Your task to perform on an android device: turn off smart reply in the gmail app Image 0: 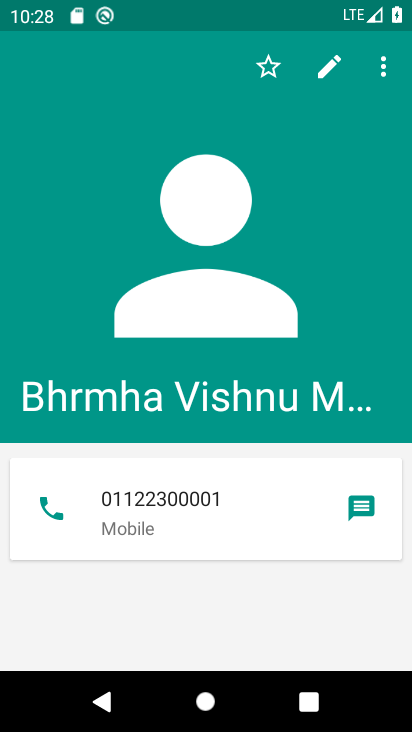
Step 0: press home button
Your task to perform on an android device: turn off smart reply in the gmail app Image 1: 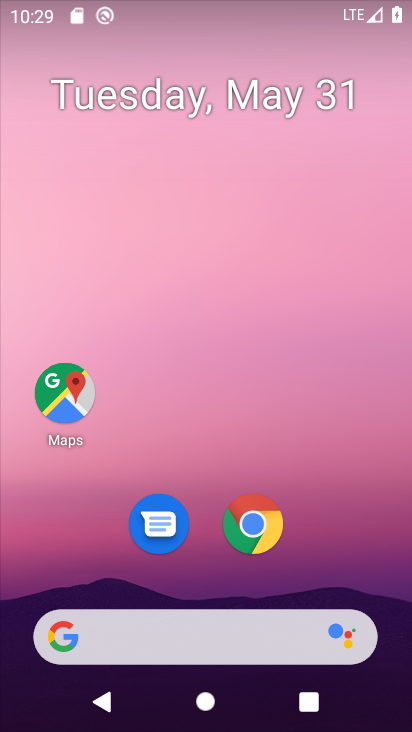
Step 1: drag from (321, 558) to (336, 180)
Your task to perform on an android device: turn off smart reply in the gmail app Image 2: 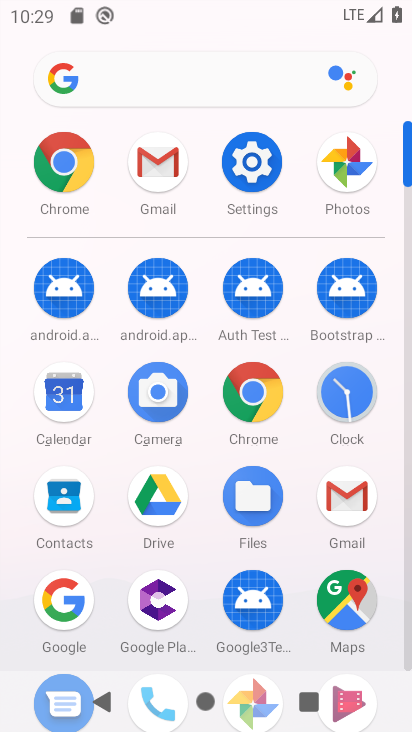
Step 2: click (261, 165)
Your task to perform on an android device: turn off smart reply in the gmail app Image 3: 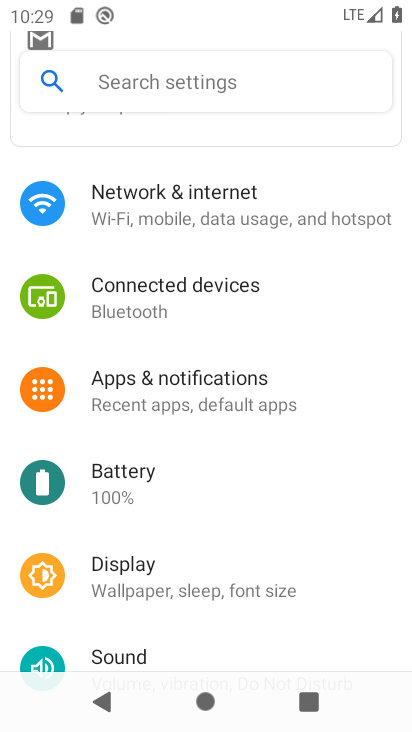
Step 3: drag from (237, 527) to (234, 401)
Your task to perform on an android device: turn off smart reply in the gmail app Image 4: 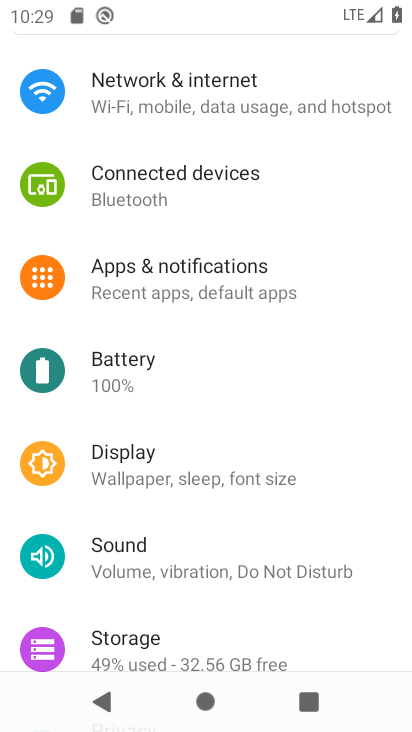
Step 4: press home button
Your task to perform on an android device: turn off smart reply in the gmail app Image 5: 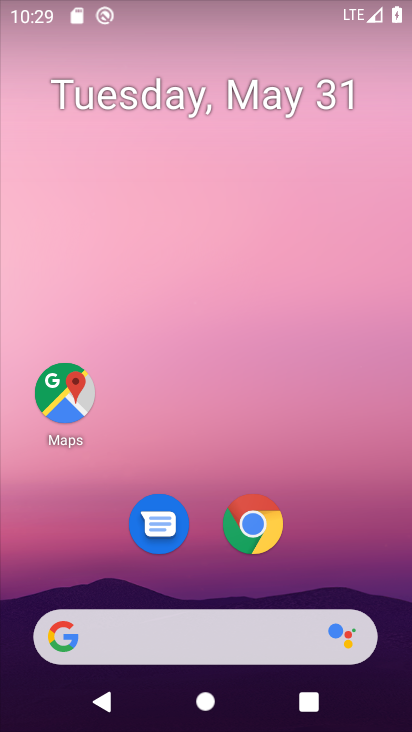
Step 5: drag from (227, 465) to (220, 0)
Your task to perform on an android device: turn off smart reply in the gmail app Image 6: 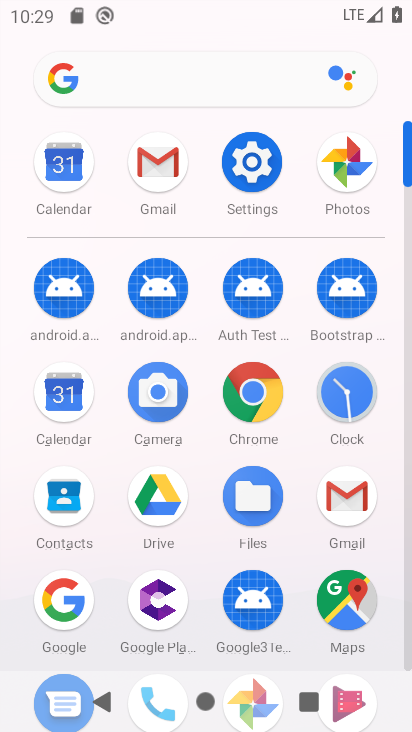
Step 6: click (150, 163)
Your task to perform on an android device: turn off smart reply in the gmail app Image 7: 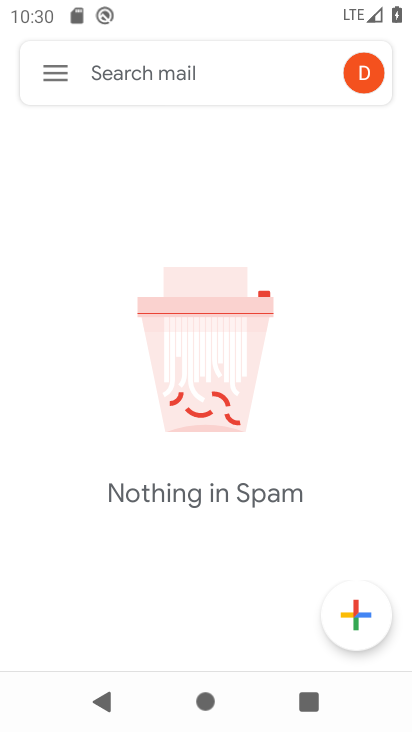
Step 7: click (56, 77)
Your task to perform on an android device: turn off smart reply in the gmail app Image 8: 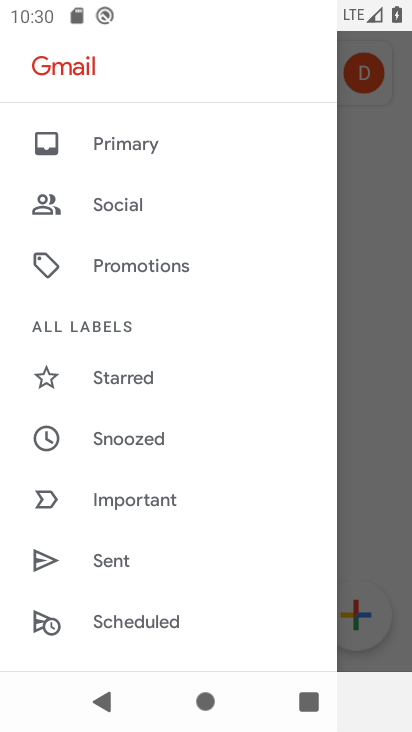
Step 8: drag from (193, 555) to (222, 67)
Your task to perform on an android device: turn off smart reply in the gmail app Image 9: 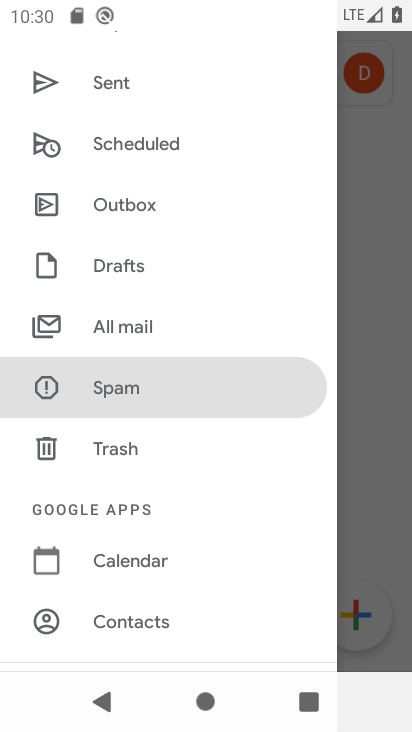
Step 9: drag from (225, 472) to (262, 221)
Your task to perform on an android device: turn off smart reply in the gmail app Image 10: 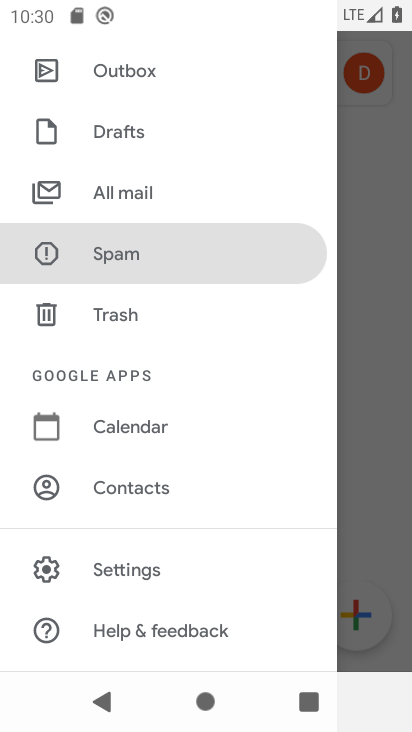
Step 10: click (154, 561)
Your task to perform on an android device: turn off smart reply in the gmail app Image 11: 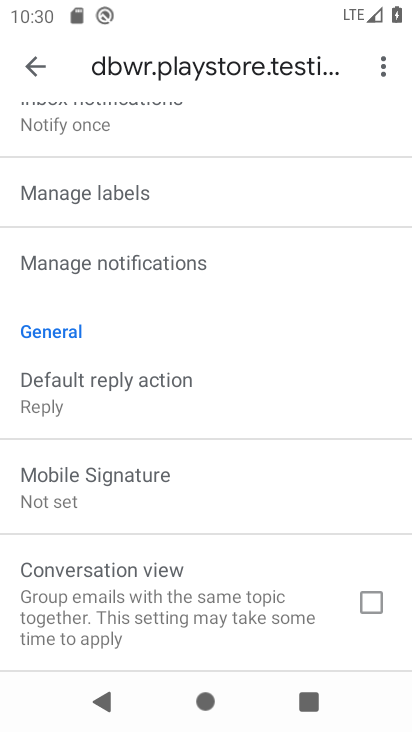
Step 11: drag from (229, 529) to (245, 19)
Your task to perform on an android device: turn off smart reply in the gmail app Image 12: 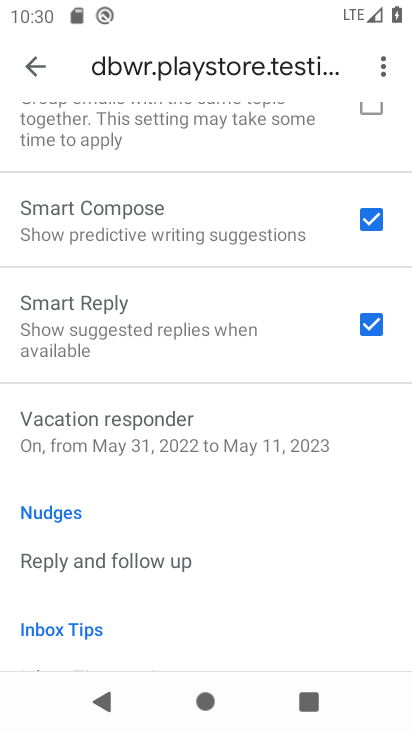
Step 12: click (367, 320)
Your task to perform on an android device: turn off smart reply in the gmail app Image 13: 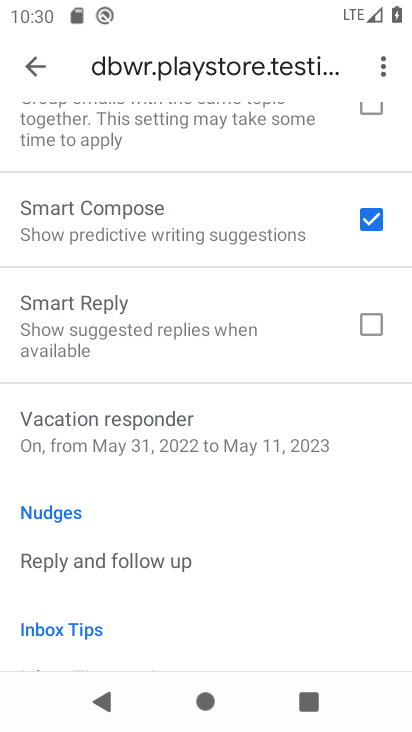
Step 13: task complete